Your task to perform on an android device: change alarm snooze length Image 0: 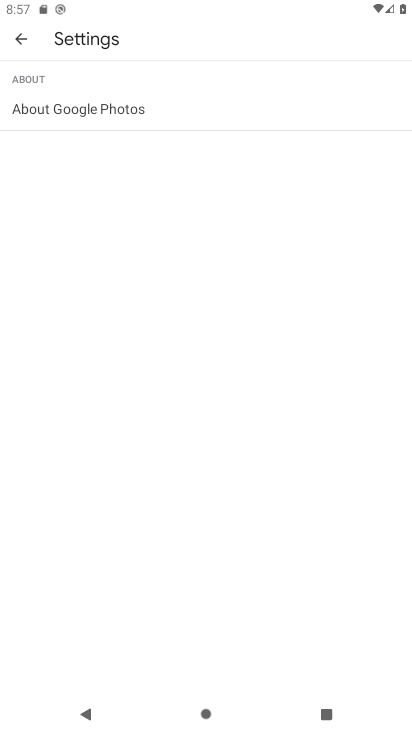
Step 0: press home button
Your task to perform on an android device: change alarm snooze length Image 1: 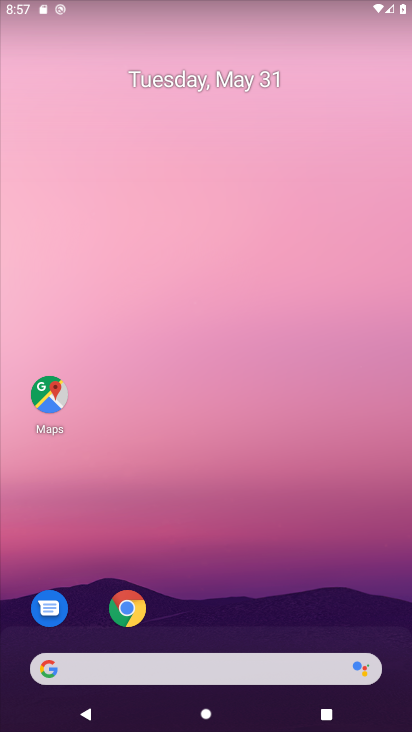
Step 1: drag from (245, 569) to (219, 59)
Your task to perform on an android device: change alarm snooze length Image 2: 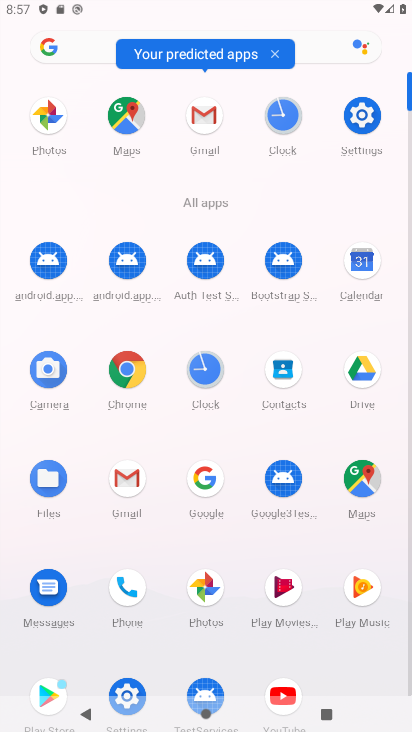
Step 2: click (279, 122)
Your task to perform on an android device: change alarm snooze length Image 3: 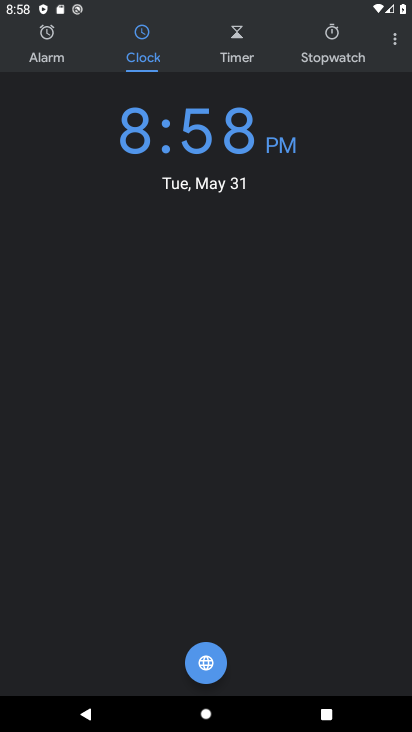
Step 3: click (392, 43)
Your task to perform on an android device: change alarm snooze length Image 4: 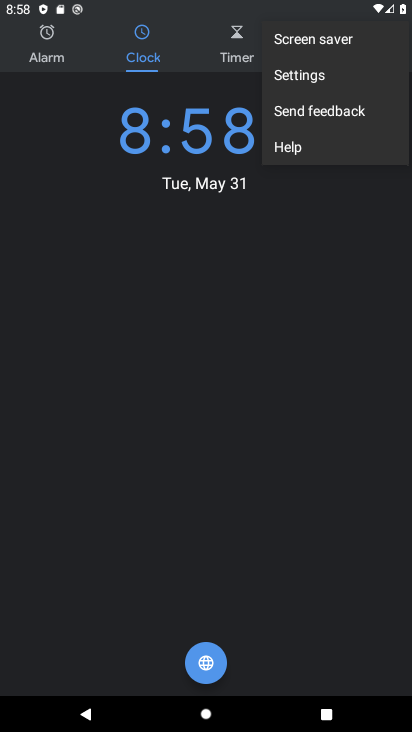
Step 4: click (349, 78)
Your task to perform on an android device: change alarm snooze length Image 5: 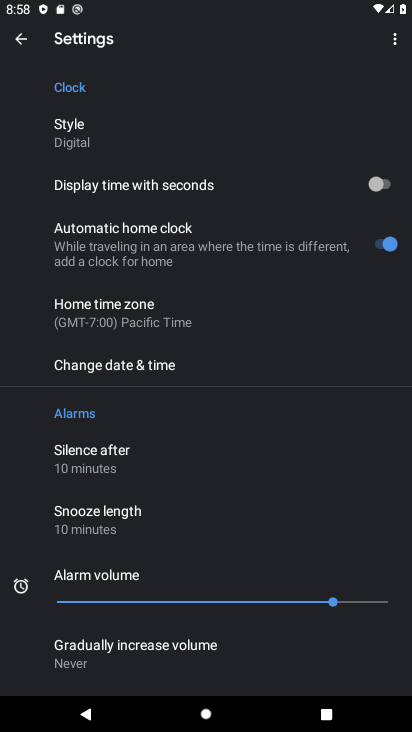
Step 5: click (105, 523)
Your task to perform on an android device: change alarm snooze length Image 6: 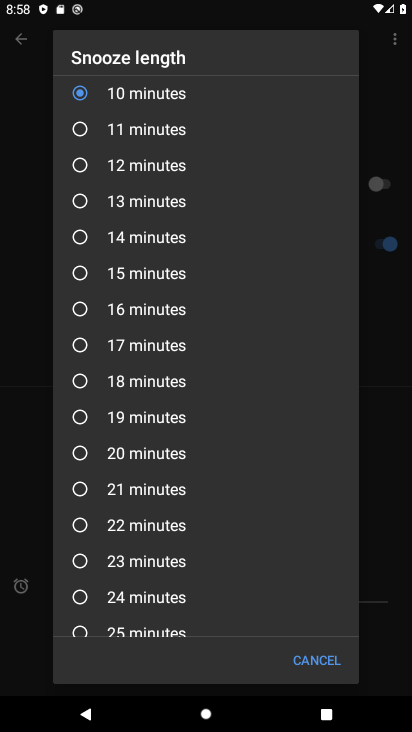
Step 6: click (185, 276)
Your task to perform on an android device: change alarm snooze length Image 7: 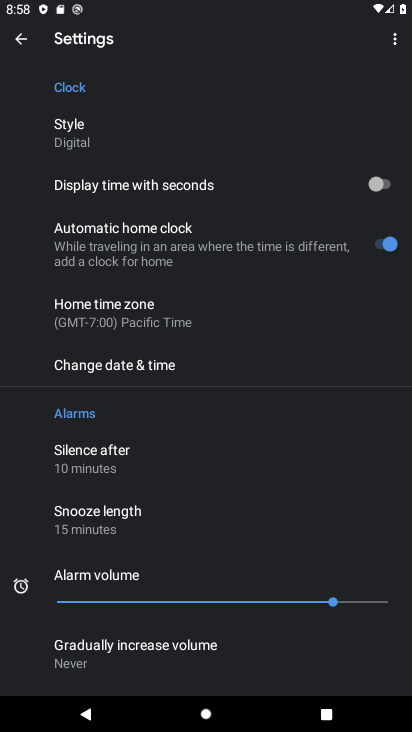
Step 7: task complete